Your task to perform on an android device: toggle airplane mode Image 0: 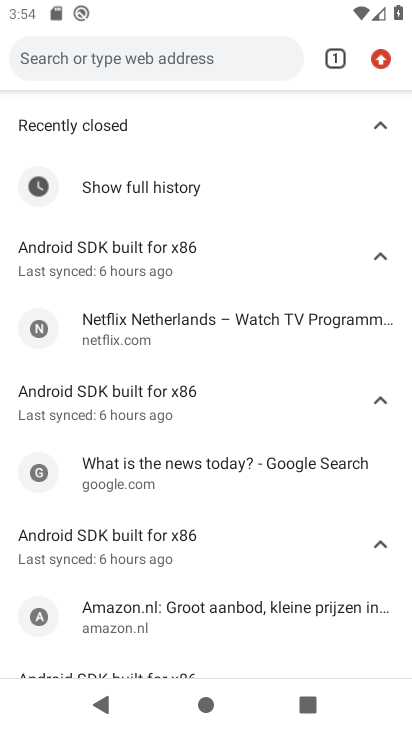
Step 0: drag from (234, 9) to (54, 631)
Your task to perform on an android device: toggle airplane mode Image 1: 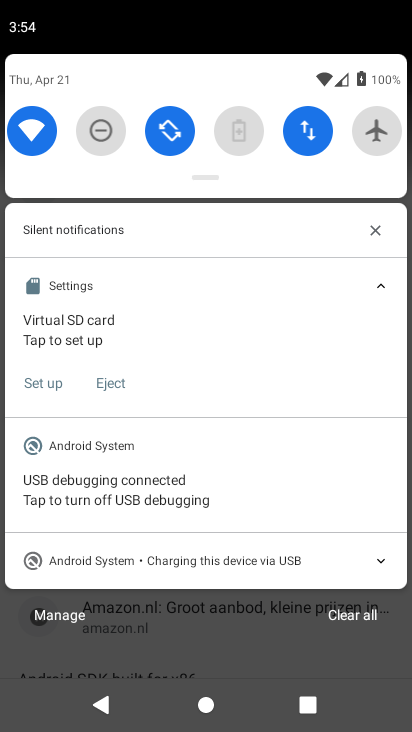
Step 1: click (368, 135)
Your task to perform on an android device: toggle airplane mode Image 2: 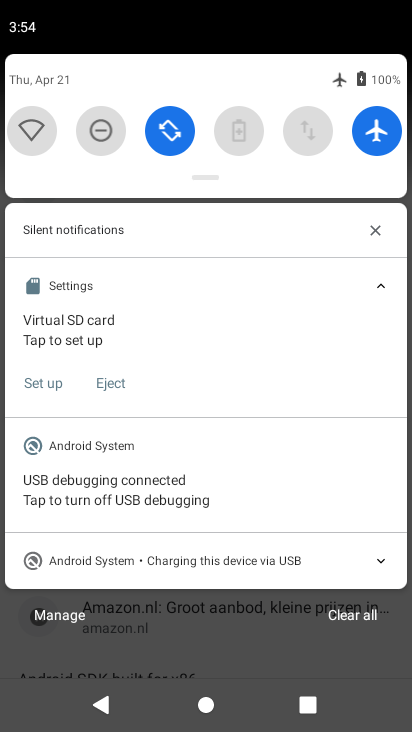
Step 2: click (368, 135)
Your task to perform on an android device: toggle airplane mode Image 3: 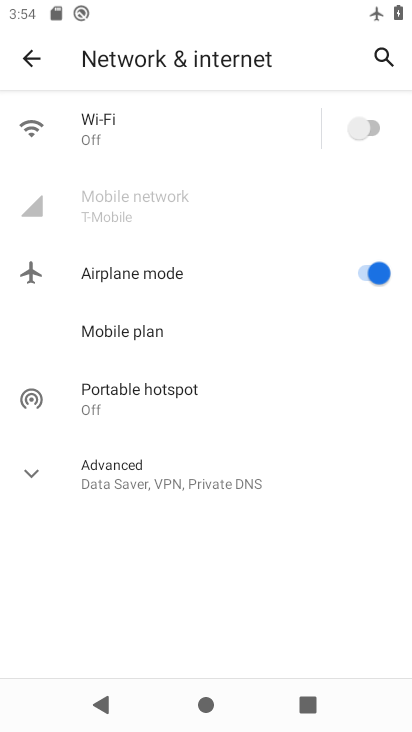
Step 3: click (373, 286)
Your task to perform on an android device: toggle airplane mode Image 4: 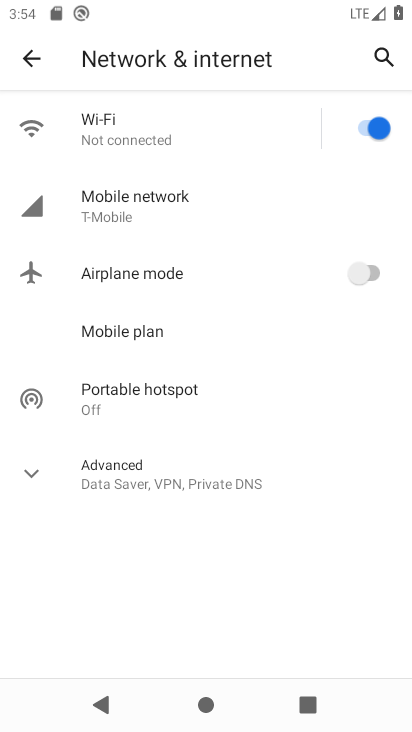
Step 4: task complete